Your task to perform on an android device: What is the news today? Image 0: 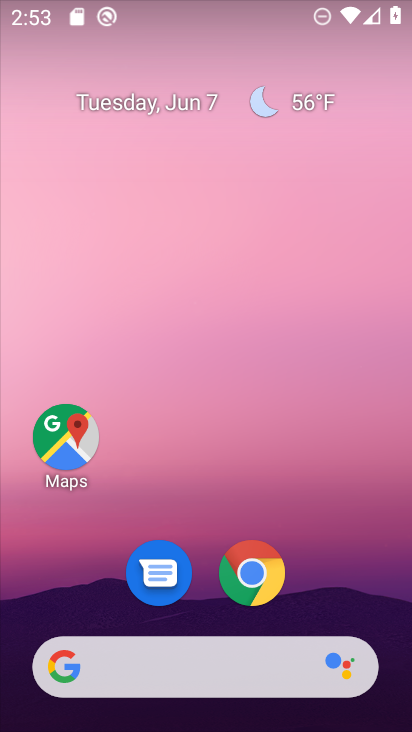
Step 0: click (170, 674)
Your task to perform on an android device: What is the news today? Image 1: 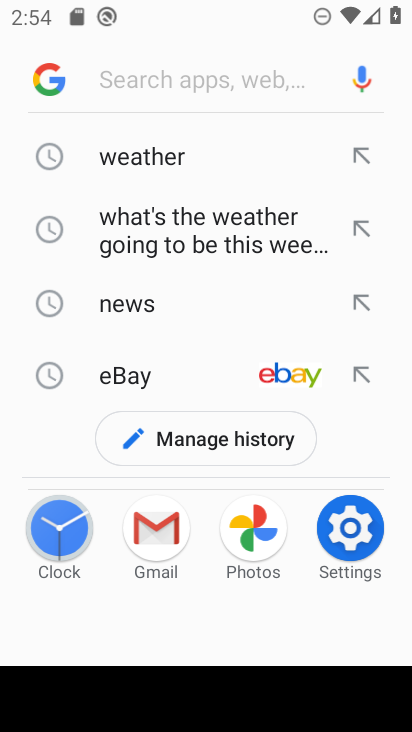
Step 1: type "what is the news today"
Your task to perform on an android device: What is the news today? Image 2: 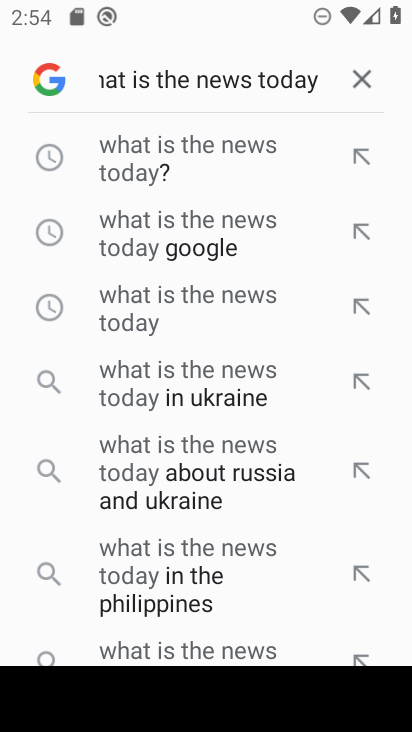
Step 2: click (130, 129)
Your task to perform on an android device: What is the news today? Image 3: 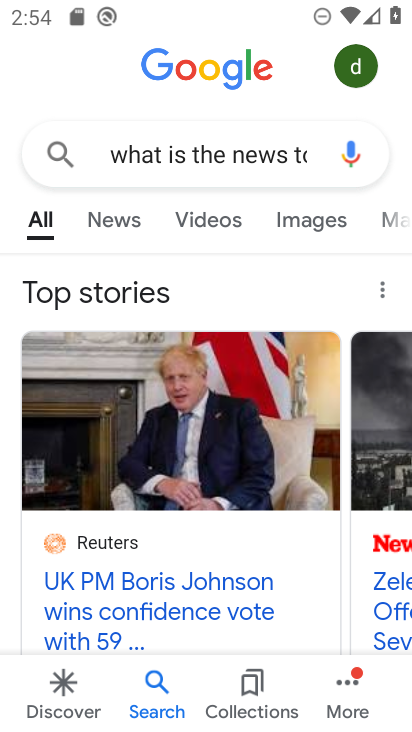
Step 3: task complete